Your task to perform on an android device: open a new tab in the chrome app Image 0: 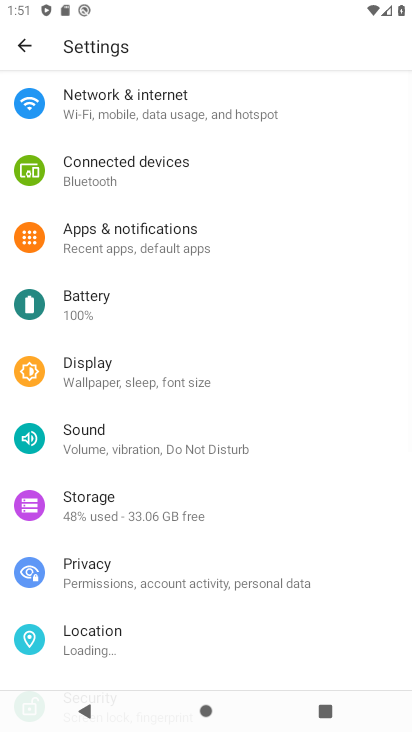
Step 0: press home button
Your task to perform on an android device: open a new tab in the chrome app Image 1: 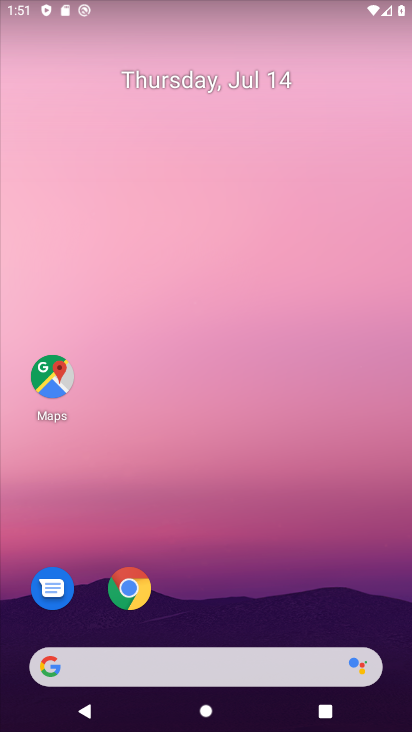
Step 1: click (137, 592)
Your task to perform on an android device: open a new tab in the chrome app Image 2: 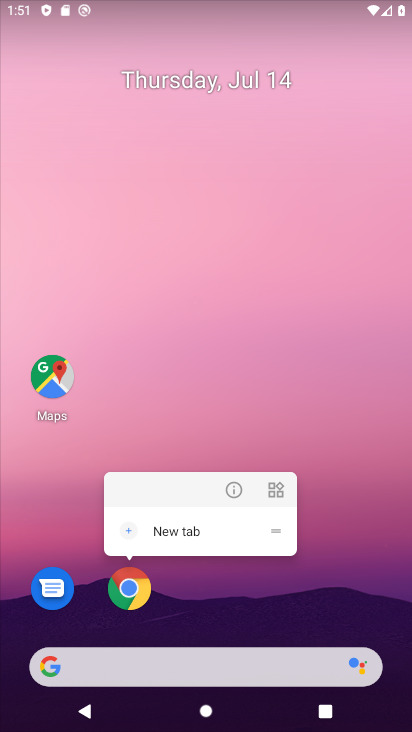
Step 2: click (125, 602)
Your task to perform on an android device: open a new tab in the chrome app Image 3: 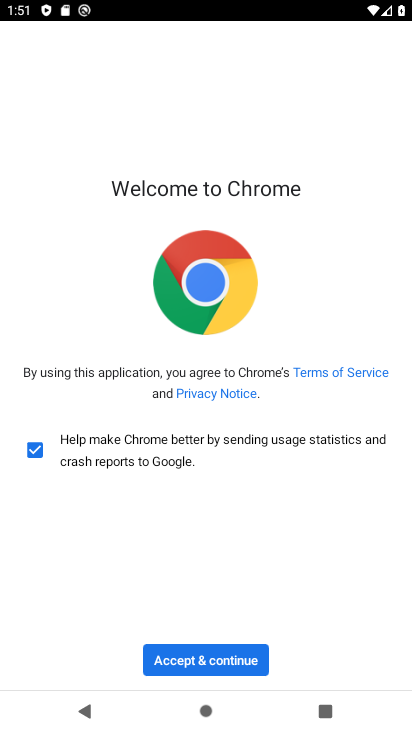
Step 3: click (193, 662)
Your task to perform on an android device: open a new tab in the chrome app Image 4: 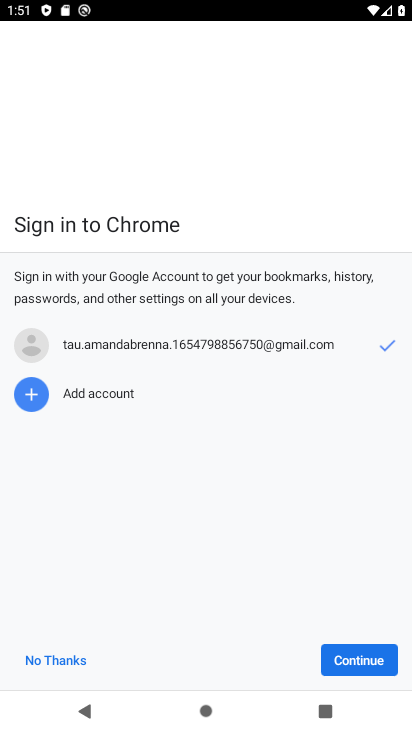
Step 4: click (346, 661)
Your task to perform on an android device: open a new tab in the chrome app Image 5: 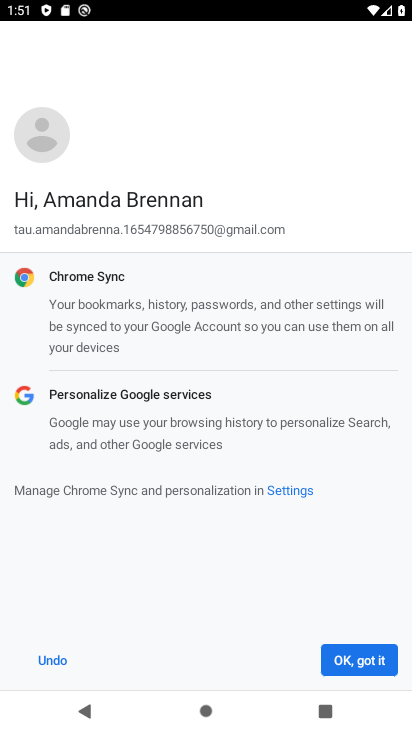
Step 5: click (360, 655)
Your task to perform on an android device: open a new tab in the chrome app Image 6: 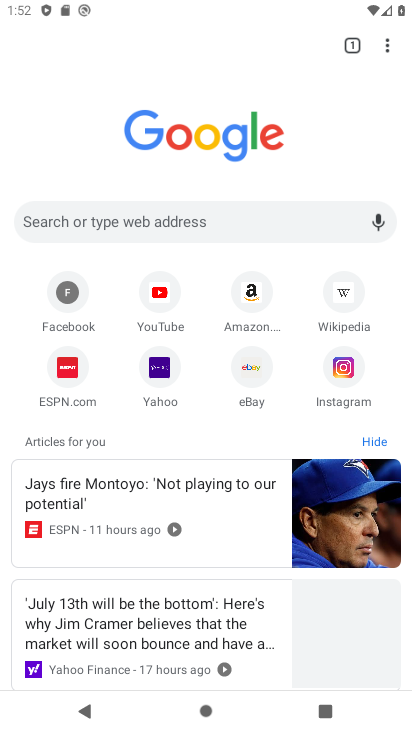
Step 6: click (386, 47)
Your task to perform on an android device: open a new tab in the chrome app Image 7: 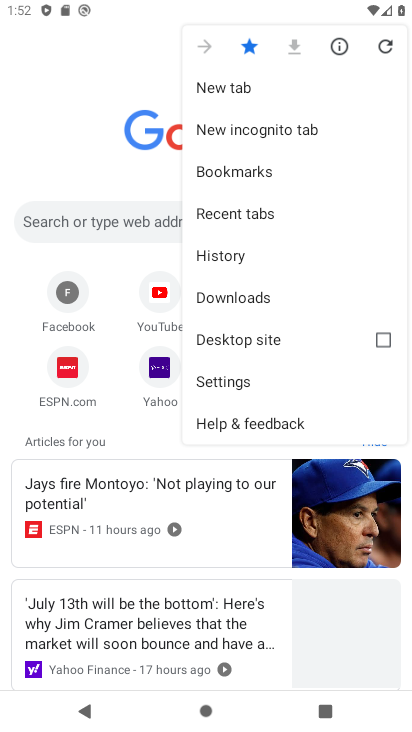
Step 7: click (273, 90)
Your task to perform on an android device: open a new tab in the chrome app Image 8: 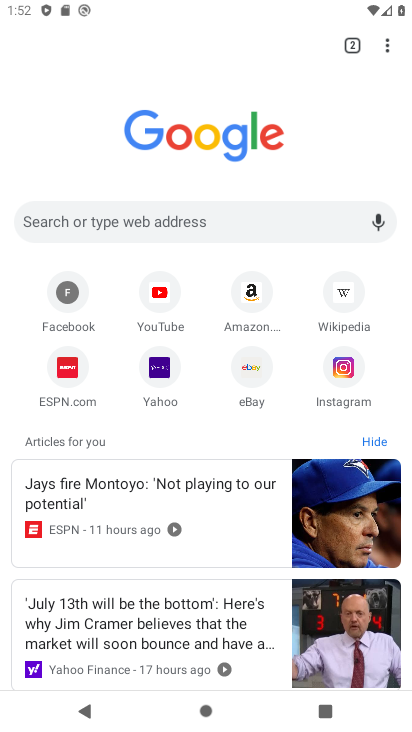
Step 8: task complete